Your task to perform on an android device: Open Google Maps and go to "Timeline" Image 0: 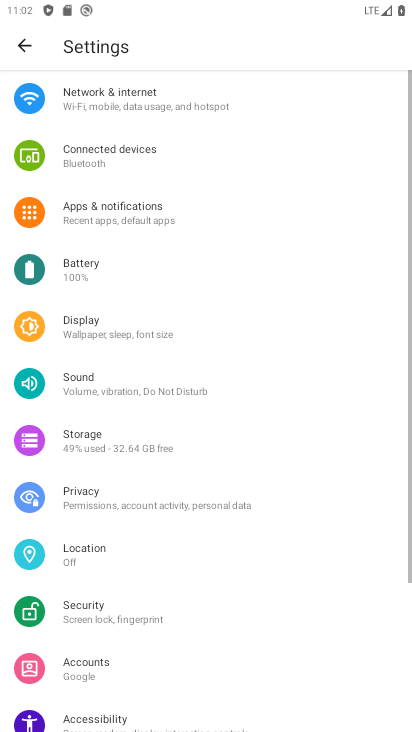
Step 0: press home button
Your task to perform on an android device: Open Google Maps and go to "Timeline" Image 1: 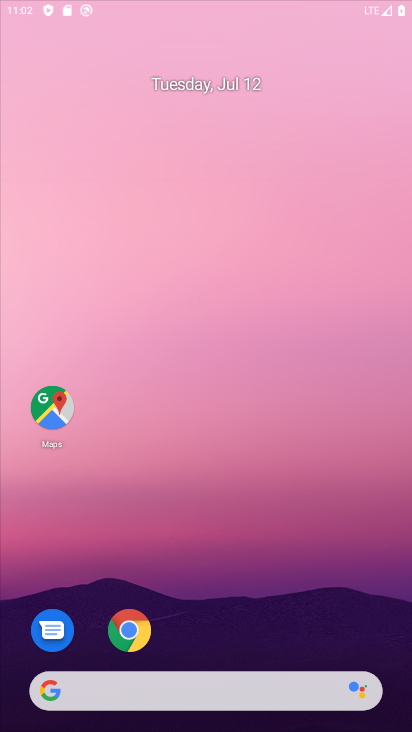
Step 1: drag from (384, 646) to (233, 228)
Your task to perform on an android device: Open Google Maps and go to "Timeline" Image 2: 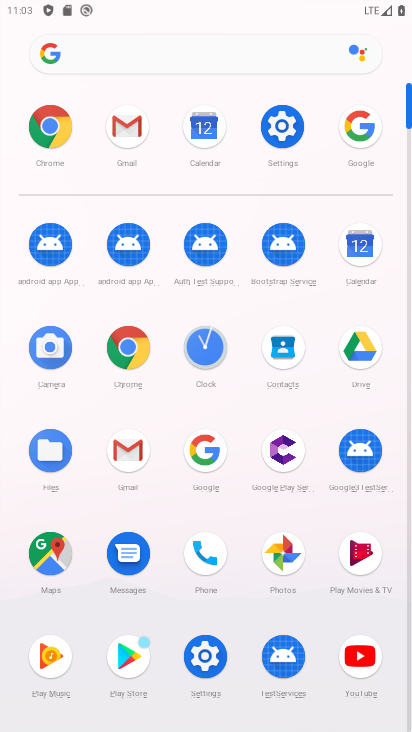
Step 2: click (39, 548)
Your task to perform on an android device: Open Google Maps and go to "Timeline" Image 3: 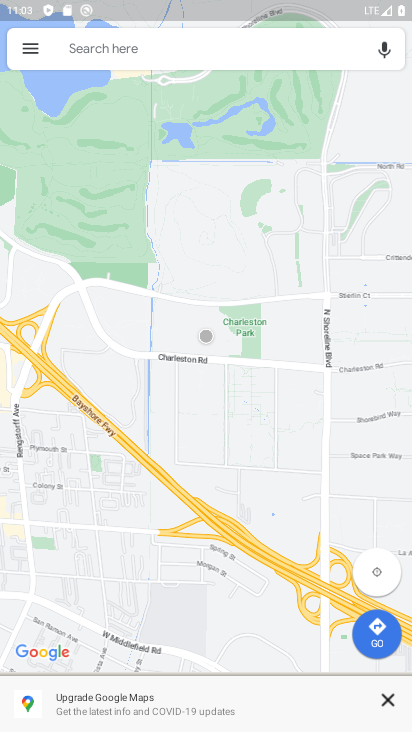
Step 3: click (39, 48)
Your task to perform on an android device: Open Google Maps and go to "Timeline" Image 4: 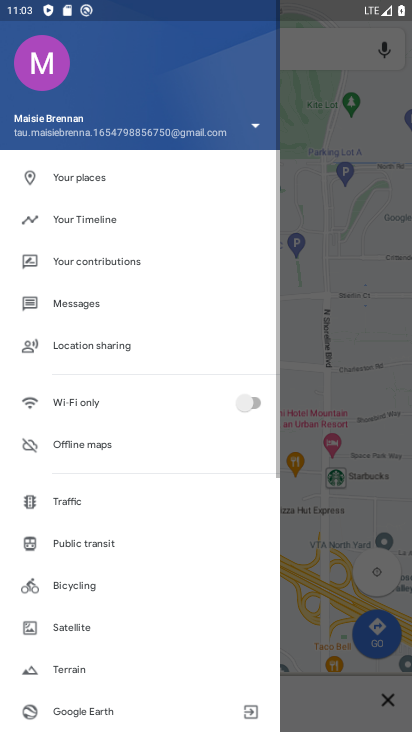
Step 4: click (91, 218)
Your task to perform on an android device: Open Google Maps and go to "Timeline" Image 5: 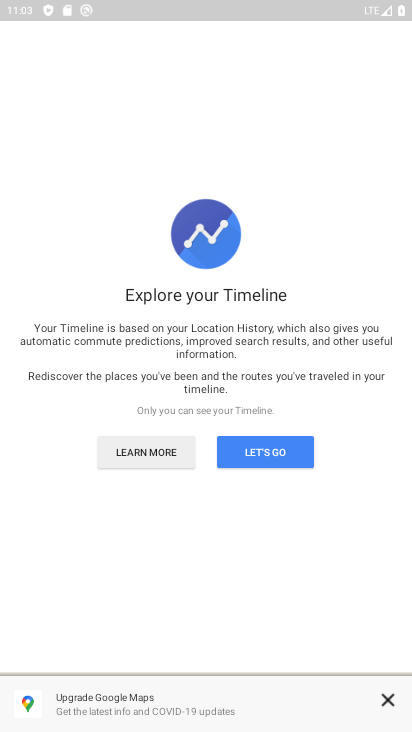
Step 5: task complete